Your task to perform on an android device: see tabs open on other devices in the chrome app Image 0: 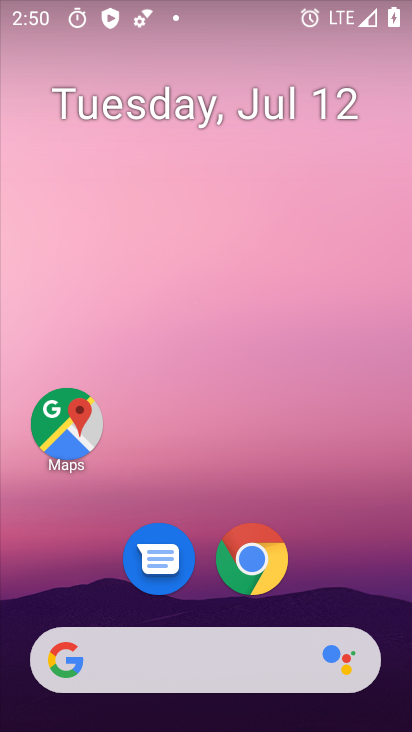
Step 0: drag from (358, 588) to (364, 226)
Your task to perform on an android device: see tabs open on other devices in the chrome app Image 1: 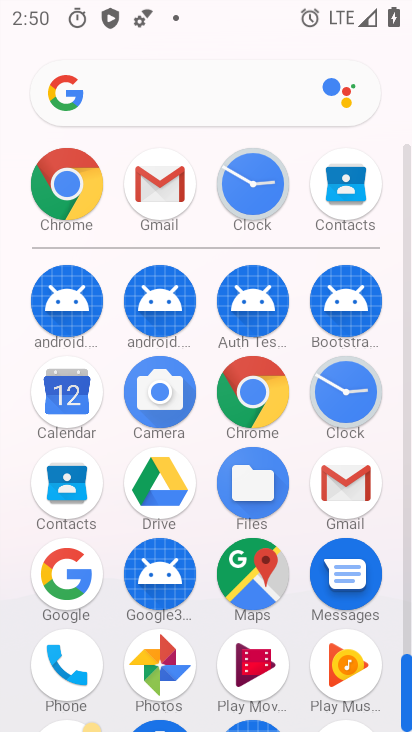
Step 1: click (245, 403)
Your task to perform on an android device: see tabs open on other devices in the chrome app Image 2: 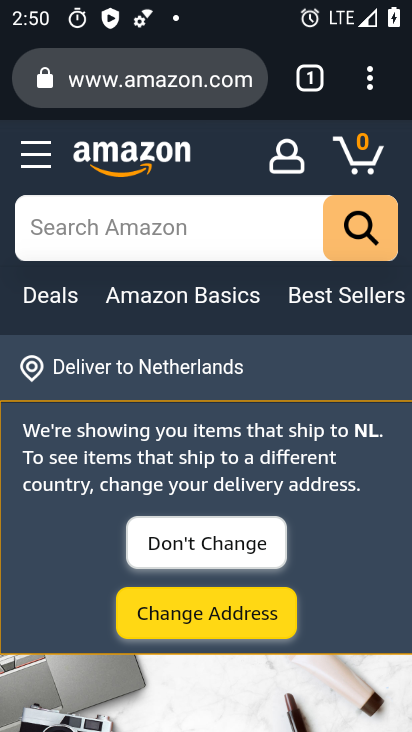
Step 2: click (367, 90)
Your task to perform on an android device: see tabs open on other devices in the chrome app Image 3: 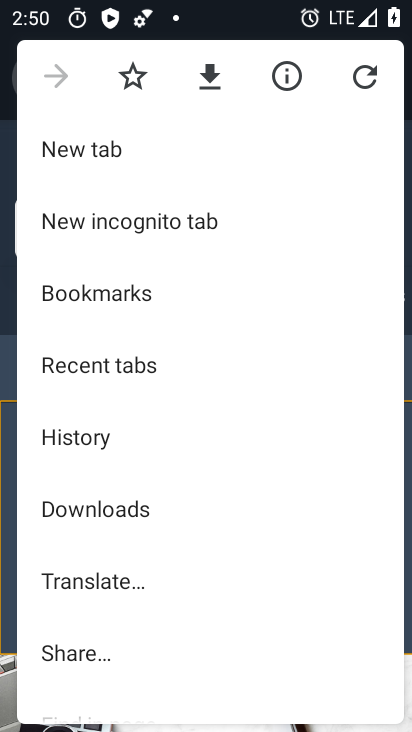
Step 3: drag from (292, 341) to (307, 272)
Your task to perform on an android device: see tabs open on other devices in the chrome app Image 4: 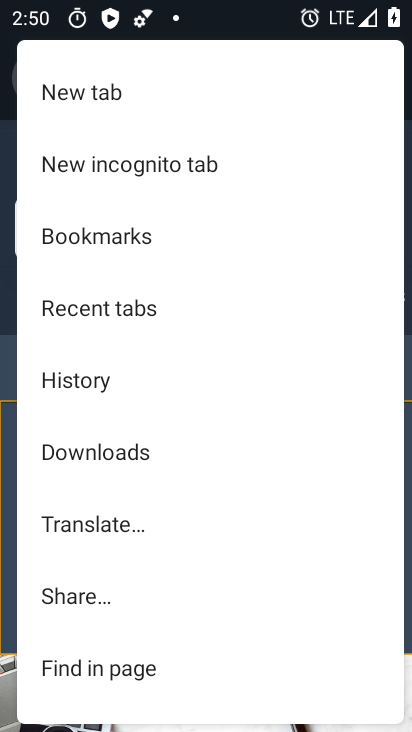
Step 4: drag from (296, 368) to (300, 277)
Your task to perform on an android device: see tabs open on other devices in the chrome app Image 5: 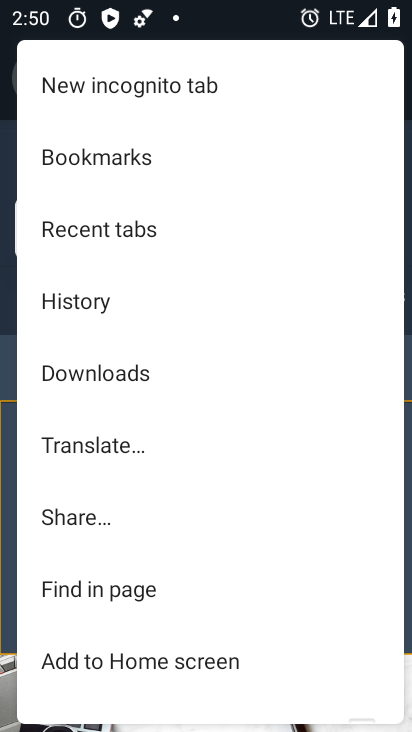
Step 5: drag from (295, 370) to (302, 299)
Your task to perform on an android device: see tabs open on other devices in the chrome app Image 6: 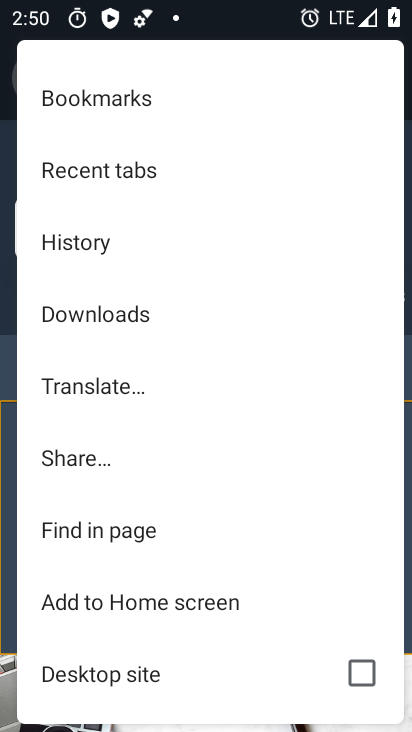
Step 6: drag from (325, 245) to (322, 316)
Your task to perform on an android device: see tabs open on other devices in the chrome app Image 7: 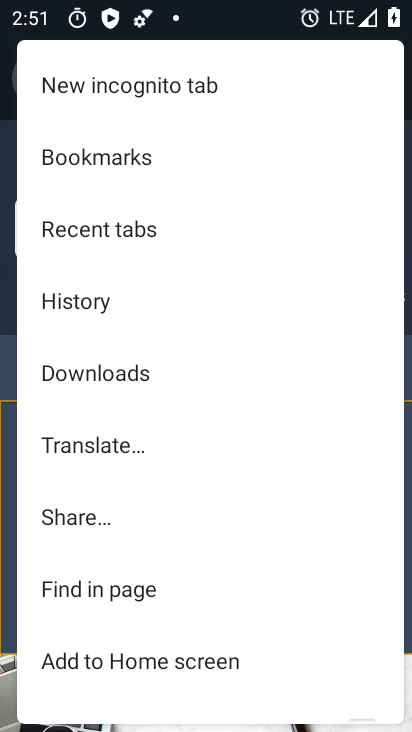
Step 7: drag from (325, 214) to (313, 341)
Your task to perform on an android device: see tabs open on other devices in the chrome app Image 8: 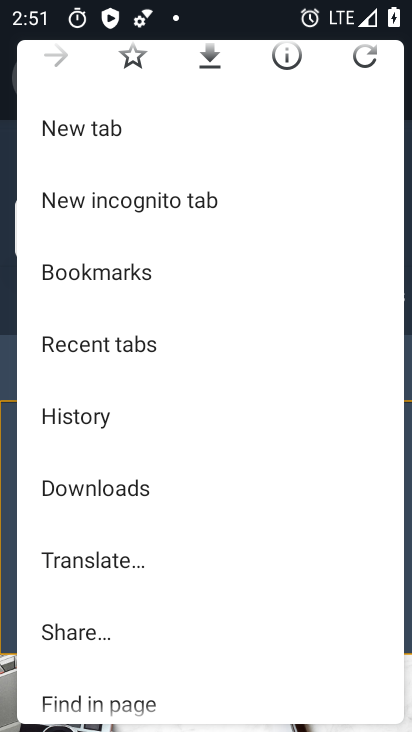
Step 8: drag from (322, 253) to (305, 360)
Your task to perform on an android device: see tabs open on other devices in the chrome app Image 9: 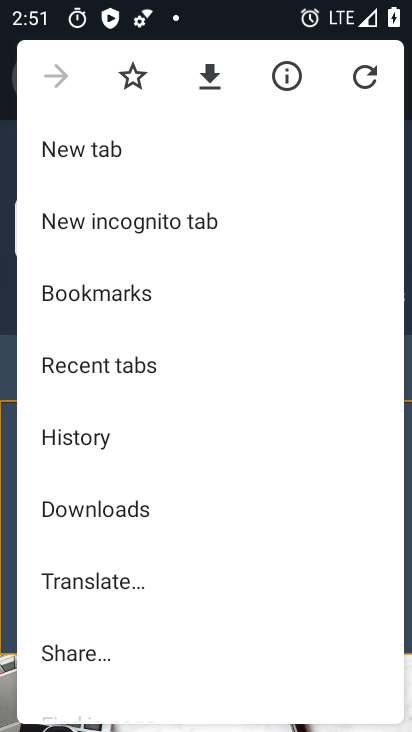
Step 9: click (200, 364)
Your task to perform on an android device: see tabs open on other devices in the chrome app Image 10: 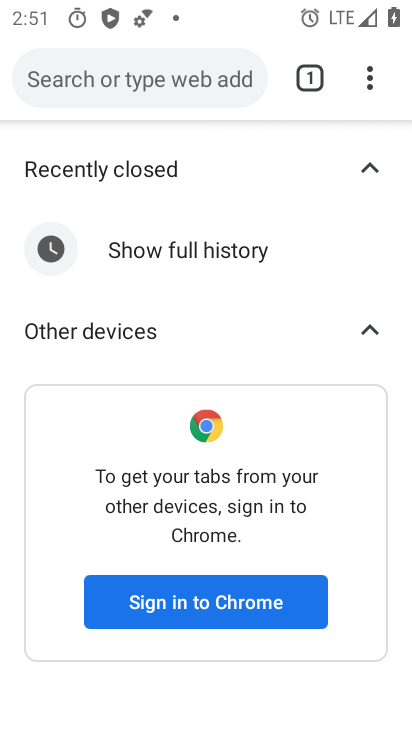
Step 10: click (317, 83)
Your task to perform on an android device: see tabs open on other devices in the chrome app Image 11: 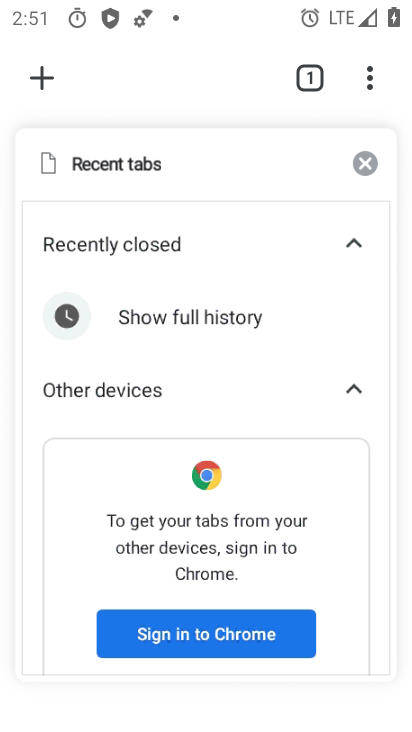
Step 11: task complete